Your task to perform on an android device: turn on wifi Image 0: 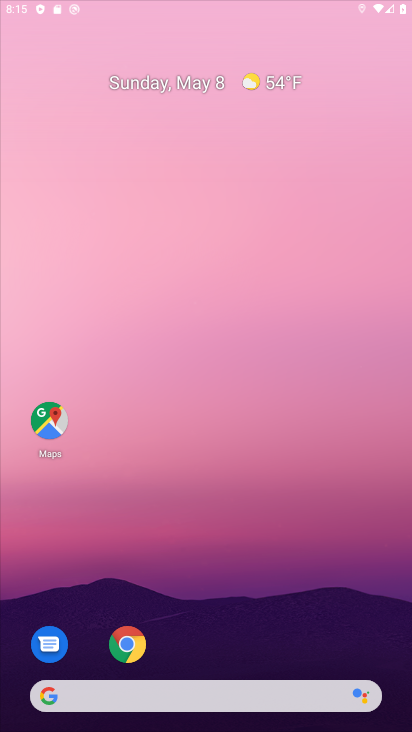
Step 0: click (287, 236)
Your task to perform on an android device: turn on wifi Image 1: 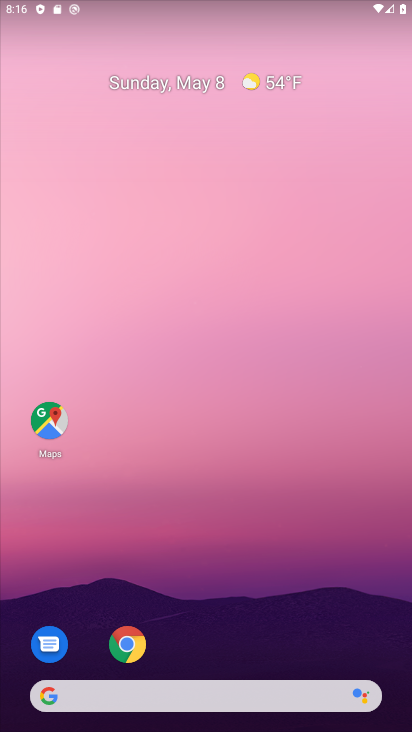
Step 1: drag from (217, 634) to (266, 181)
Your task to perform on an android device: turn on wifi Image 2: 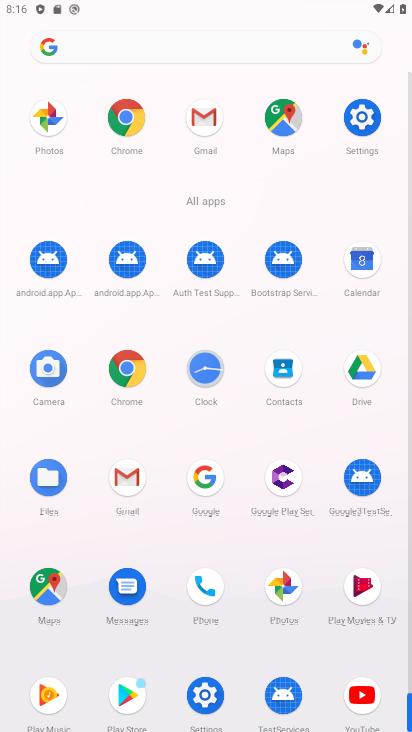
Step 2: click (358, 130)
Your task to perform on an android device: turn on wifi Image 3: 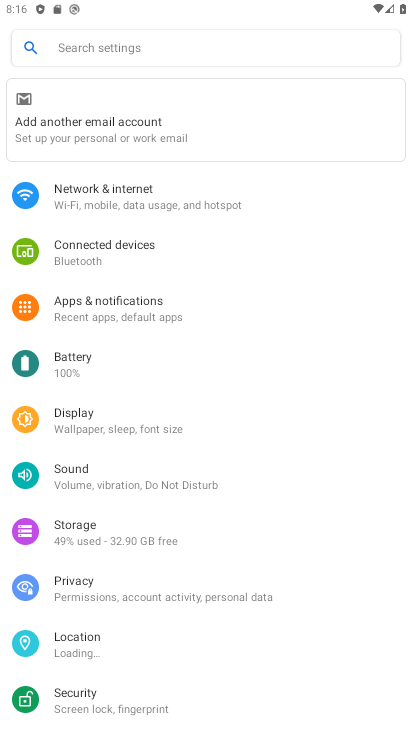
Step 3: click (113, 185)
Your task to perform on an android device: turn on wifi Image 4: 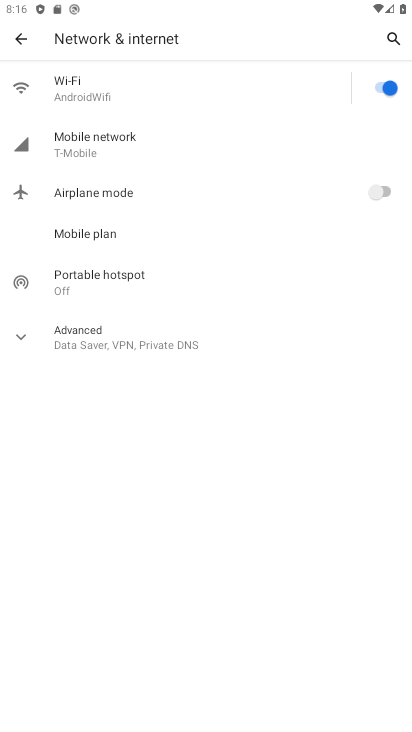
Step 4: click (209, 83)
Your task to perform on an android device: turn on wifi Image 5: 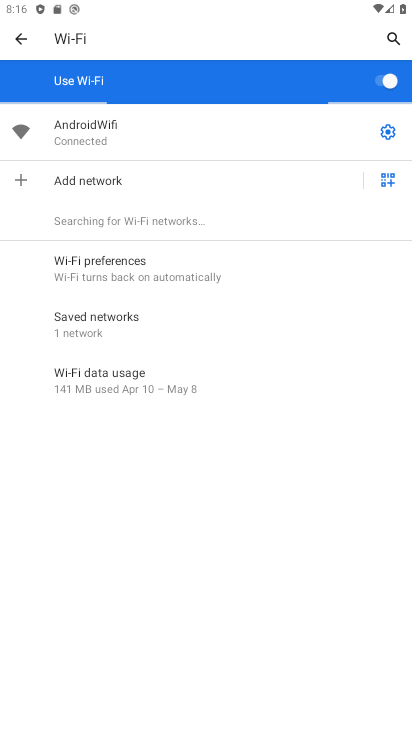
Step 5: task complete